Your task to perform on an android device: refresh tabs in the chrome app Image 0: 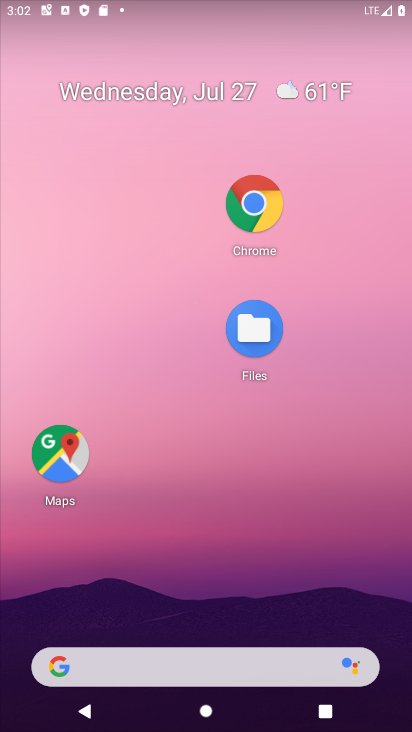
Step 0: click (260, 225)
Your task to perform on an android device: refresh tabs in the chrome app Image 1: 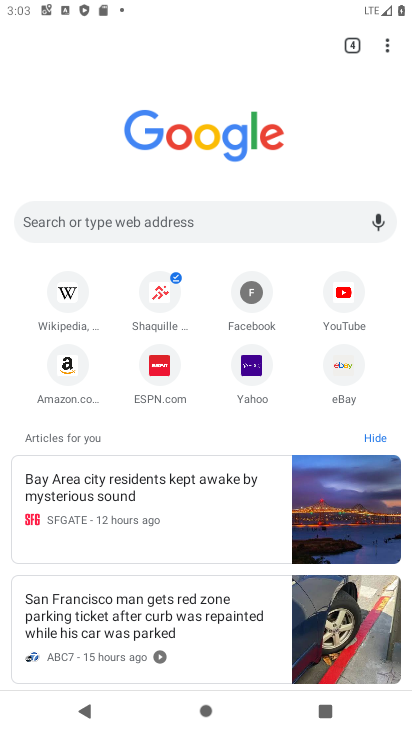
Step 1: click (392, 45)
Your task to perform on an android device: refresh tabs in the chrome app Image 2: 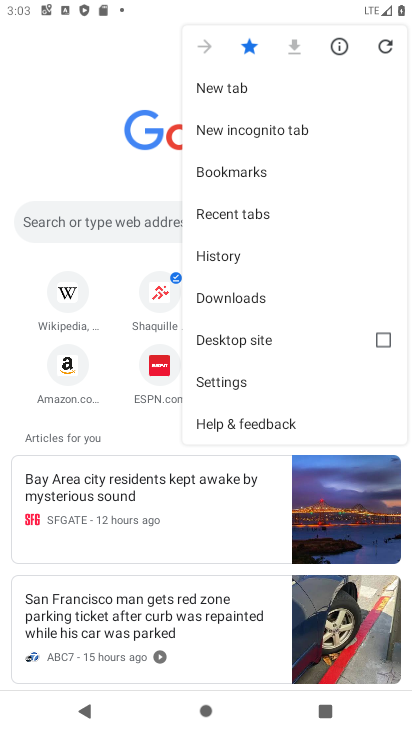
Step 2: click (390, 43)
Your task to perform on an android device: refresh tabs in the chrome app Image 3: 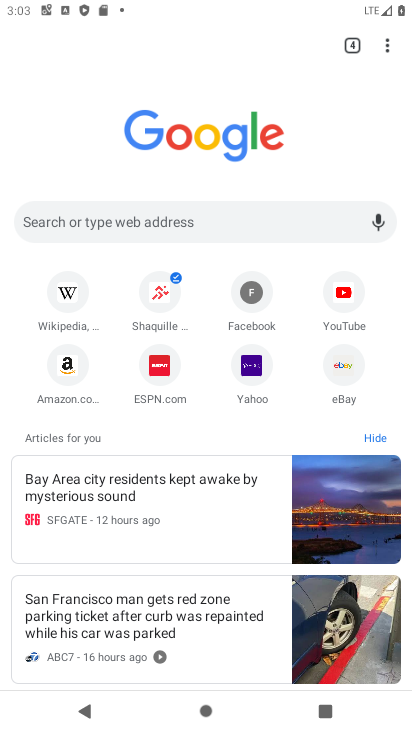
Step 3: task complete